Your task to perform on an android device: turn off javascript in the chrome app Image 0: 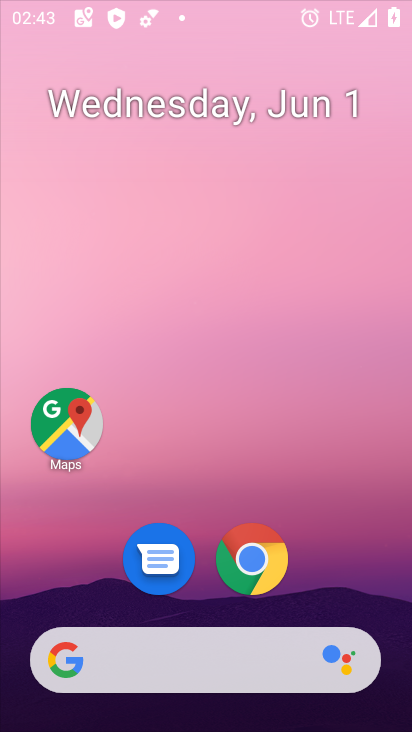
Step 0: press home button
Your task to perform on an android device: turn off javascript in the chrome app Image 1: 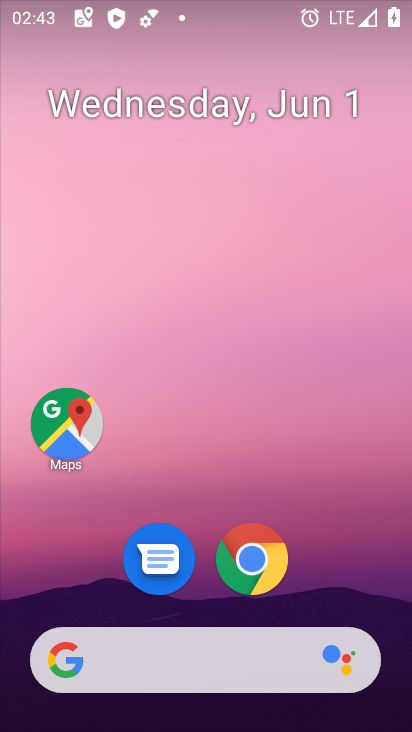
Step 1: click (253, 558)
Your task to perform on an android device: turn off javascript in the chrome app Image 2: 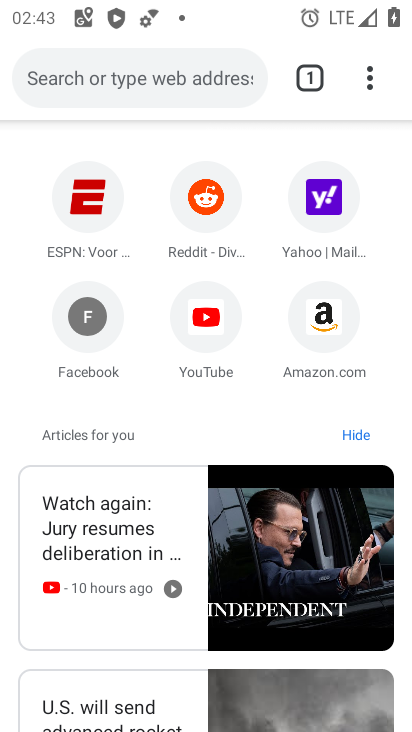
Step 2: drag from (366, 83) to (75, 649)
Your task to perform on an android device: turn off javascript in the chrome app Image 3: 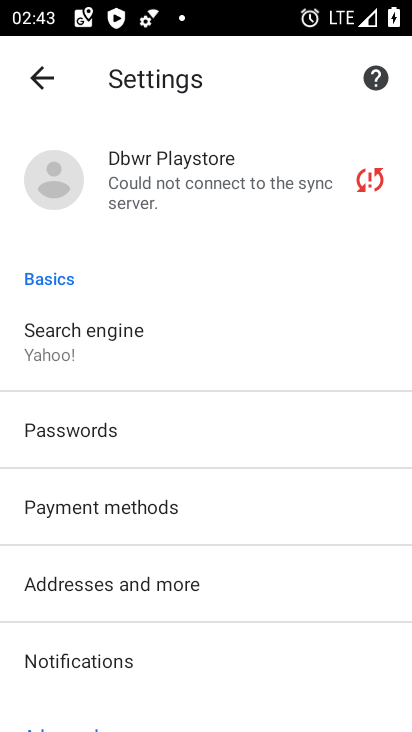
Step 3: drag from (266, 682) to (272, 337)
Your task to perform on an android device: turn off javascript in the chrome app Image 4: 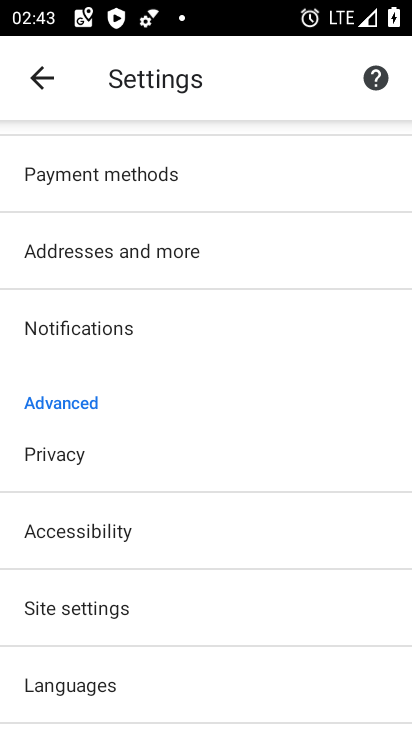
Step 4: click (92, 606)
Your task to perform on an android device: turn off javascript in the chrome app Image 5: 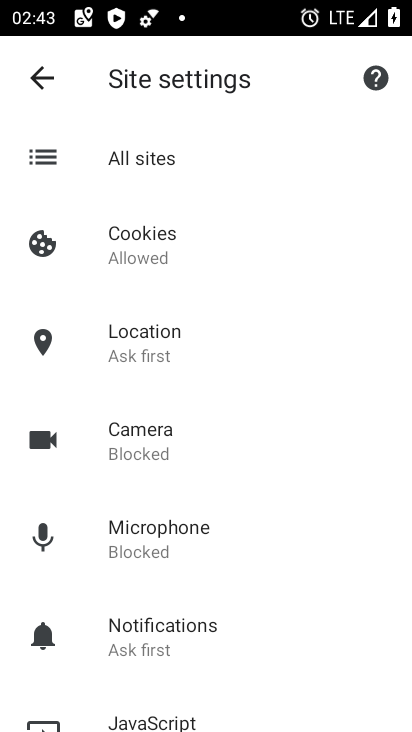
Step 5: drag from (305, 638) to (323, 402)
Your task to perform on an android device: turn off javascript in the chrome app Image 6: 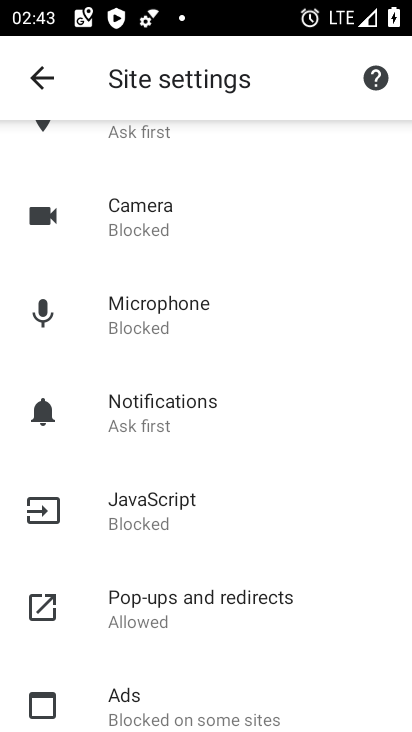
Step 6: click (165, 520)
Your task to perform on an android device: turn off javascript in the chrome app Image 7: 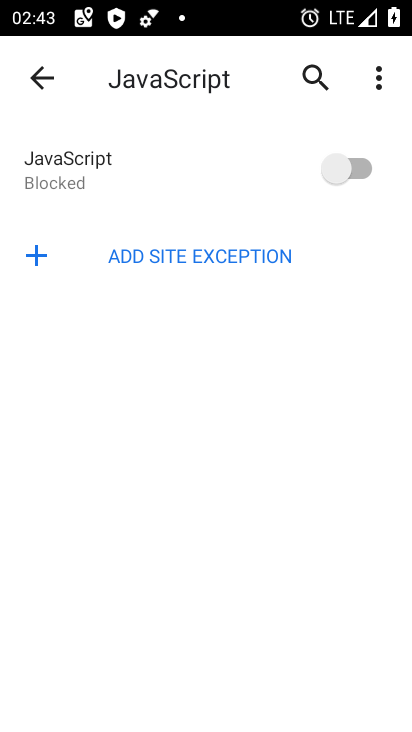
Step 7: task complete